Your task to perform on an android device: turn on data saver in the chrome app Image 0: 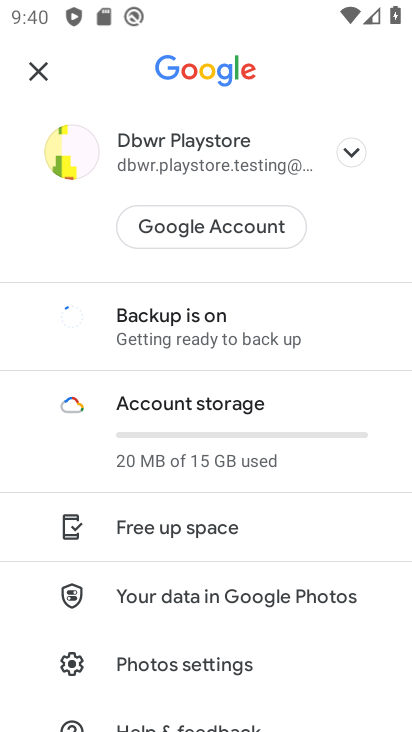
Step 0: press home button
Your task to perform on an android device: turn on data saver in the chrome app Image 1: 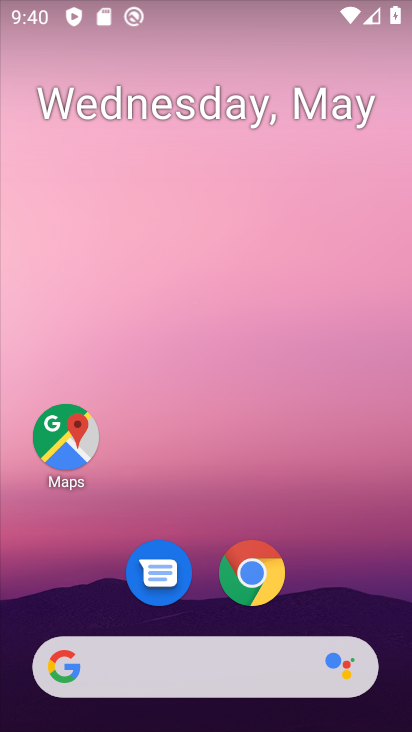
Step 1: click (249, 570)
Your task to perform on an android device: turn on data saver in the chrome app Image 2: 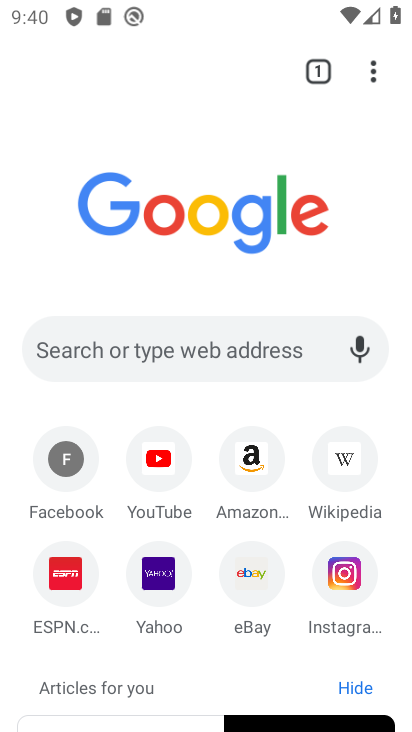
Step 2: click (375, 71)
Your task to perform on an android device: turn on data saver in the chrome app Image 3: 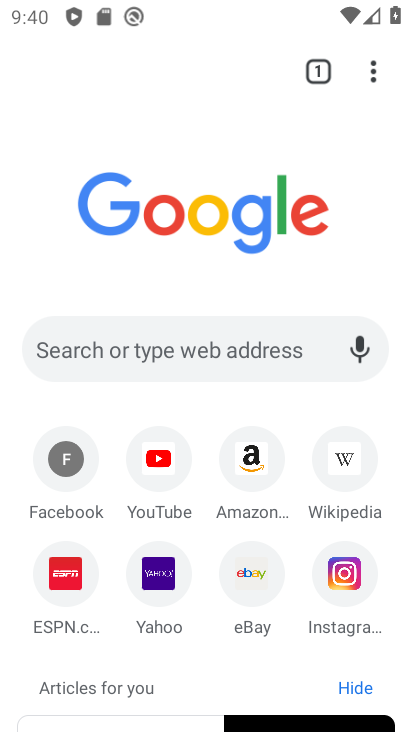
Step 3: click (373, 67)
Your task to perform on an android device: turn on data saver in the chrome app Image 4: 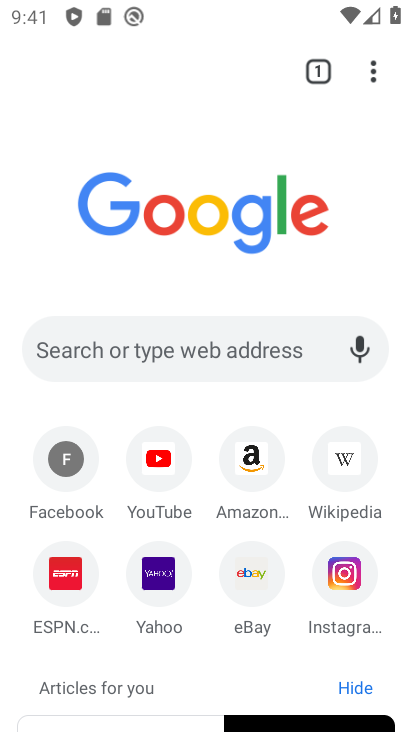
Step 4: drag from (369, 73) to (131, 586)
Your task to perform on an android device: turn on data saver in the chrome app Image 5: 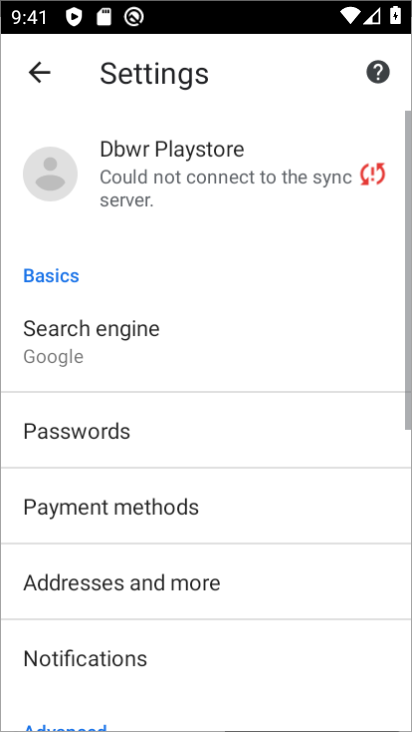
Step 5: click (130, 586)
Your task to perform on an android device: turn on data saver in the chrome app Image 6: 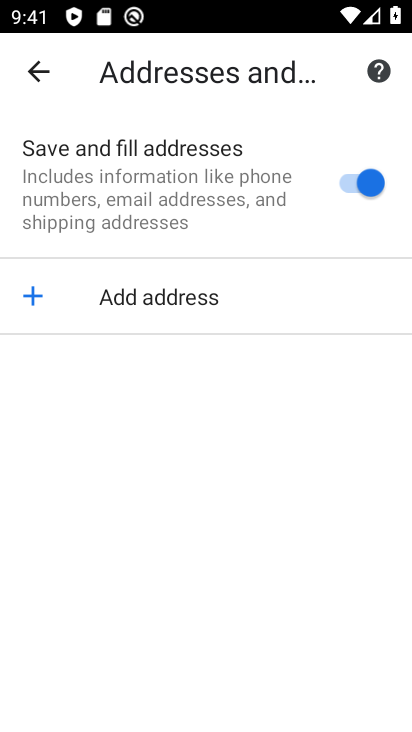
Step 6: click (44, 74)
Your task to perform on an android device: turn on data saver in the chrome app Image 7: 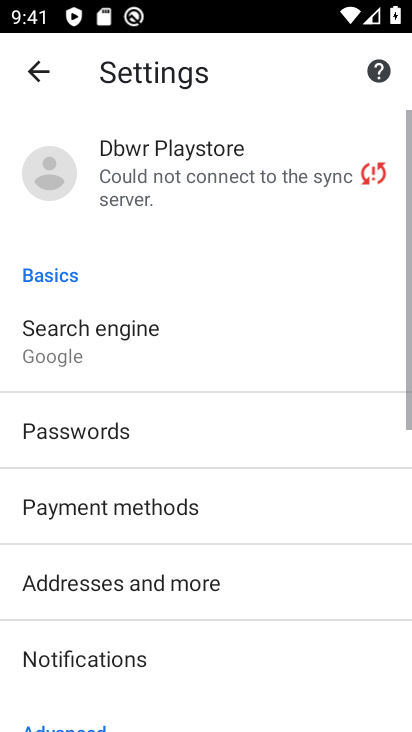
Step 7: drag from (347, 662) to (307, 245)
Your task to perform on an android device: turn on data saver in the chrome app Image 8: 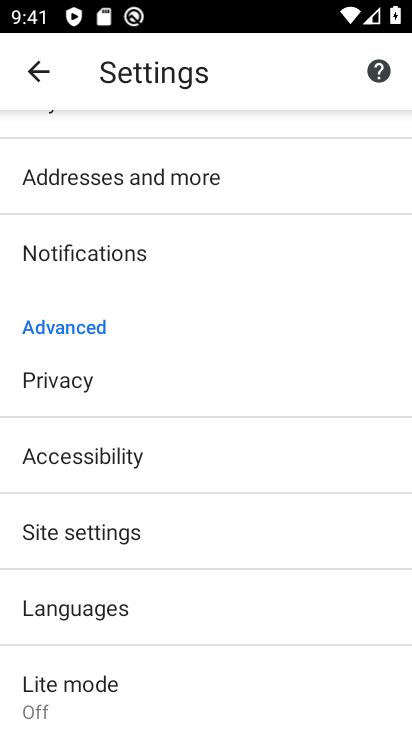
Step 8: click (178, 705)
Your task to perform on an android device: turn on data saver in the chrome app Image 9: 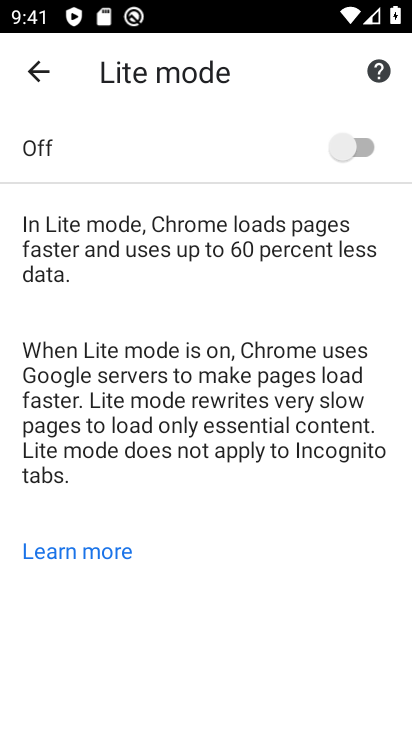
Step 9: click (353, 146)
Your task to perform on an android device: turn on data saver in the chrome app Image 10: 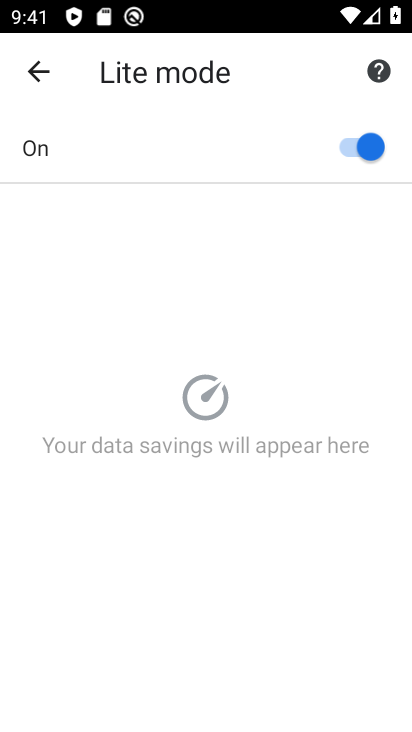
Step 10: task complete